Your task to perform on an android device: turn off location Image 0: 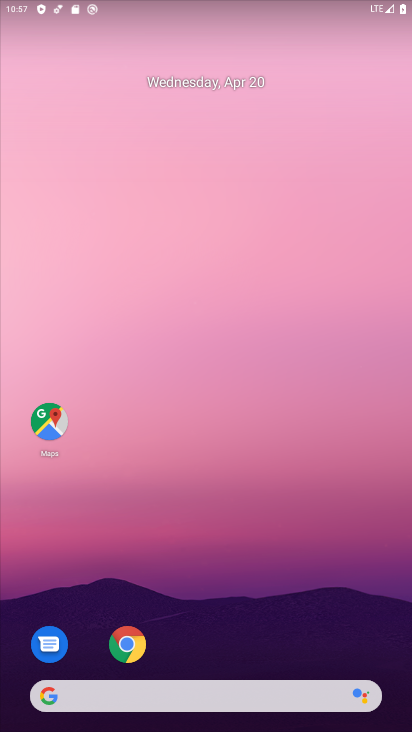
Step 0: drag from (356, 5) to (360, 603)
Your task to perform on an android device: turn off location Image 1: 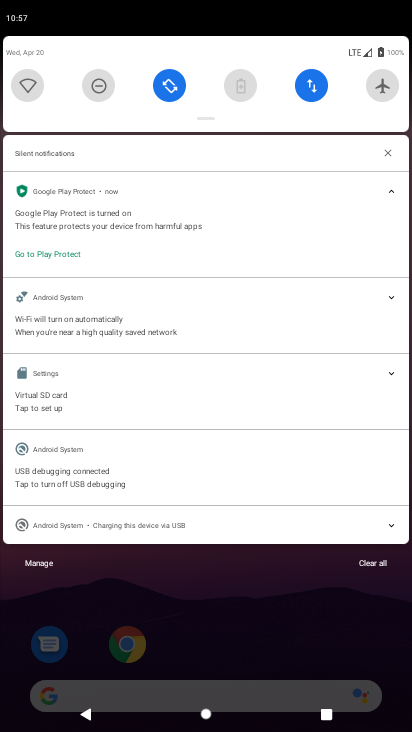
Step 1: drag from (201, 116) to (221, 540)
Your task to perform on an android device: turn off location Image 2: 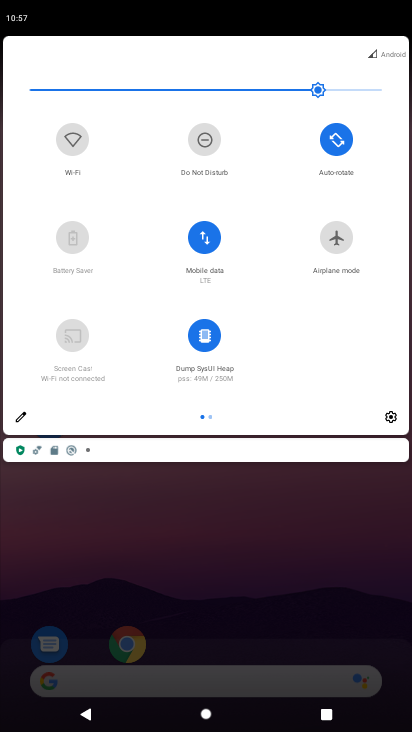
Step 2: click (22, 417)
Your task to perform on an android device: turn off location Image 3: 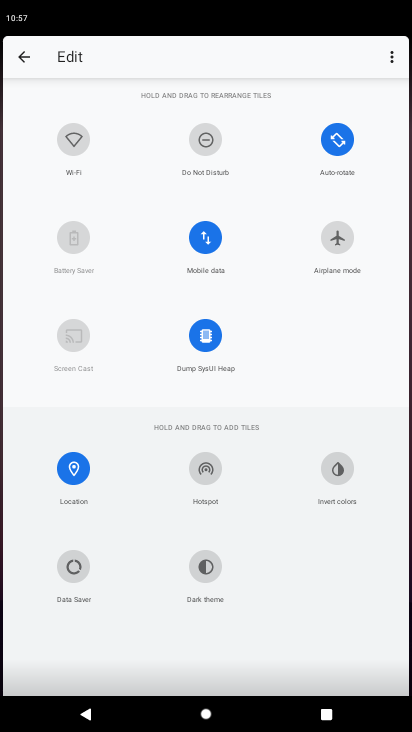
Step 3: drag from (67, 466) to (270, 345)
Your task to perform on an android device: turn off location Image 4: 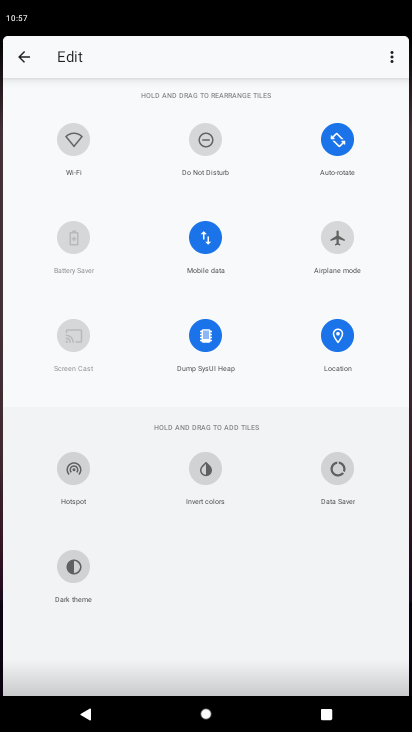
Step 4: click (21, 48)
Your task to perform on an android device: turn off location Image 5: 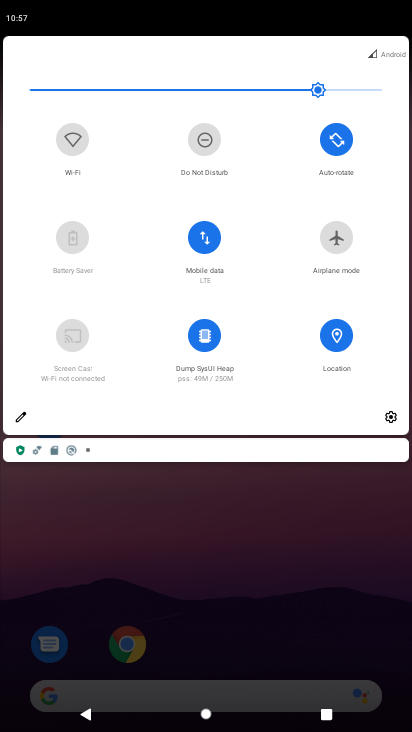
Step 5: click (342, 330)
Your task to perform on an android device: turn off location Image 6: 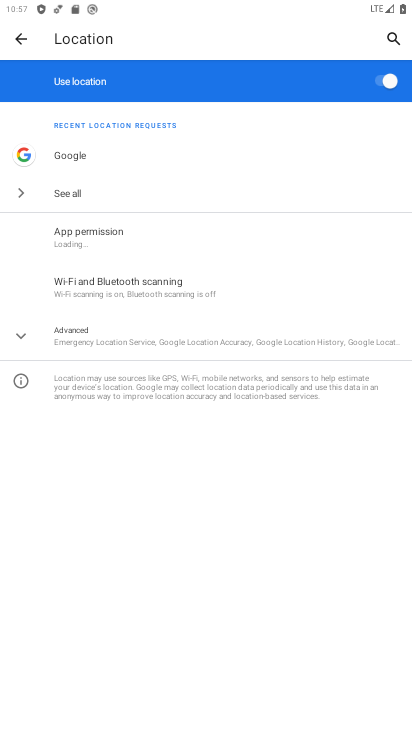
Step 6: click (386, 81)
Your task to perform on an android device: turn off location Image 7: 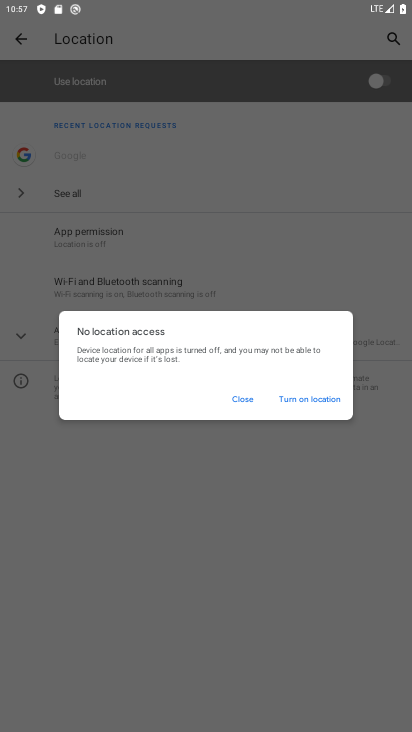
Step 7: click (241, 403)
Your task to perform on an android device: turn off location Image 8: 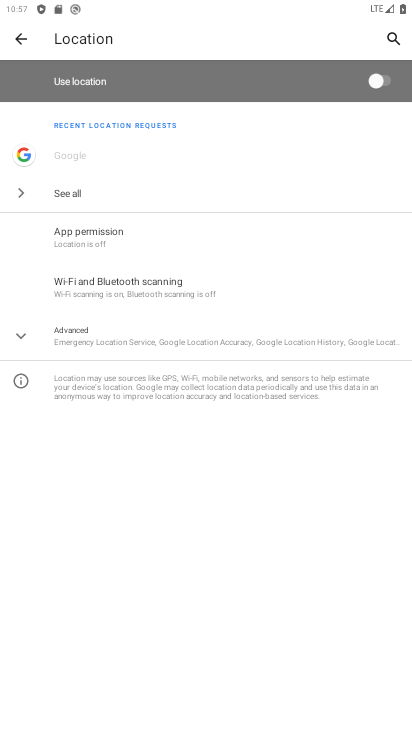
Step 8: task complete